Your task to perform on an android device: toggle sleep mode Image 0: 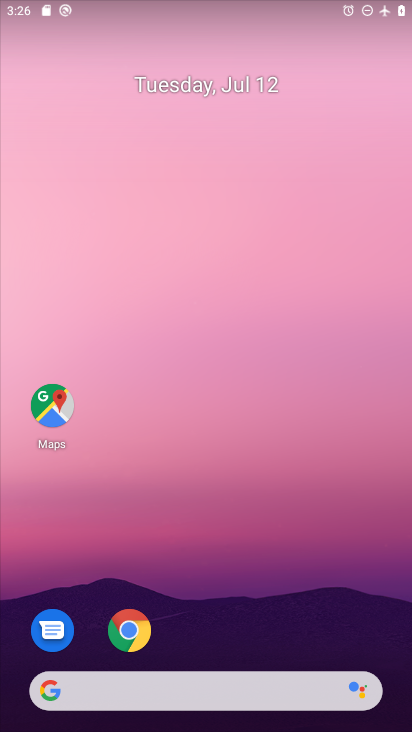
Step 0: drag from (228, 642) to (264, 169)
Your task to perform on an android device: toggle sleep mode Image 1: 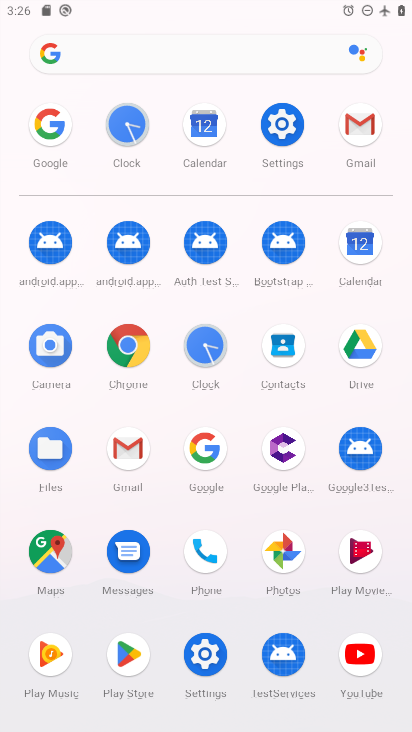
Step 1: click (305, 120)
Your task to perform on an android device: toggle sleep mode Image 2: 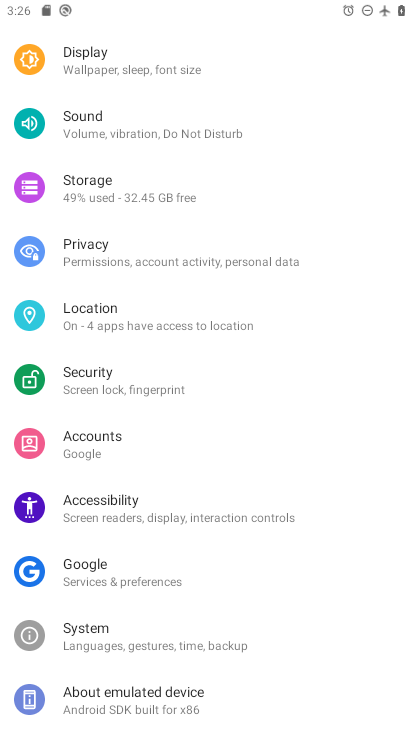
Step 2: click (79, 63)
Your task to perform on an android device: toggle sleep mode Image 3: 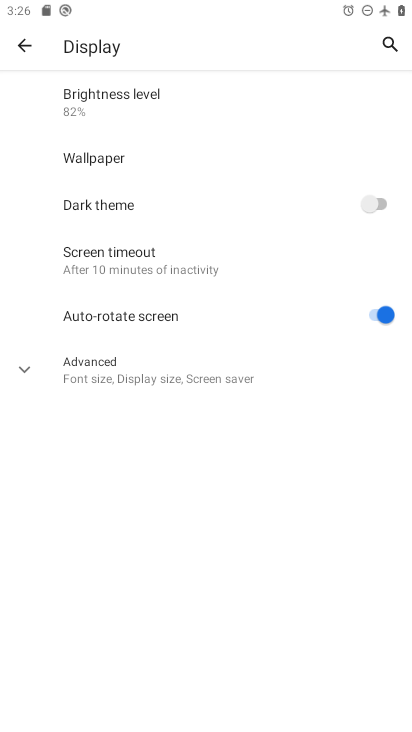
Step 3: click (153, 258)
Your task to perform on an android device: toggle sleep mode Image 4: 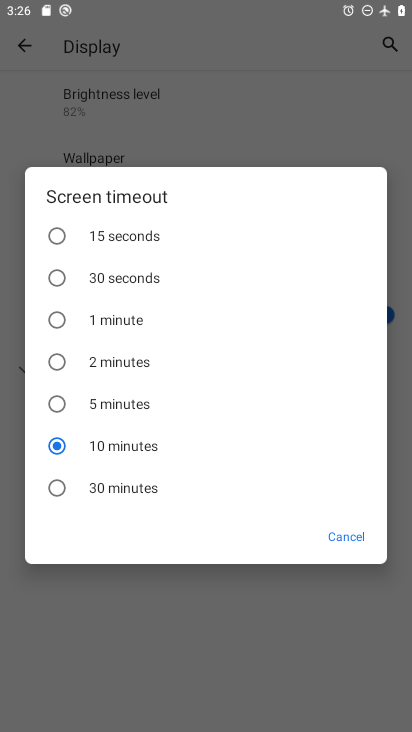
Step 4: click (116, 325)
Your task to perform on an android device: toggle sleep mode Image 5: 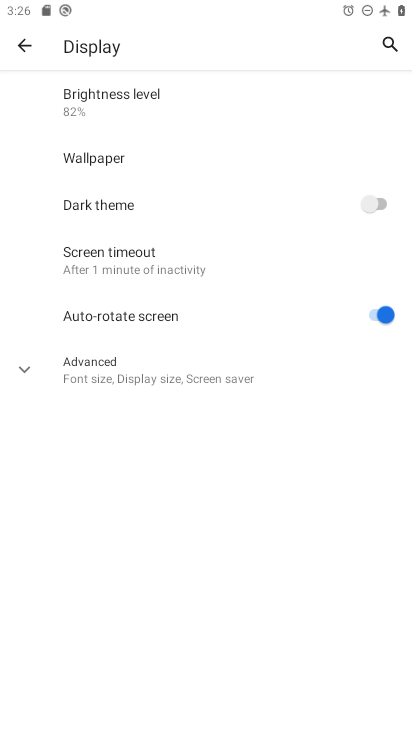
Step 5: task complete